Your task to perform on an android device: Go to CNN.com Image 0: 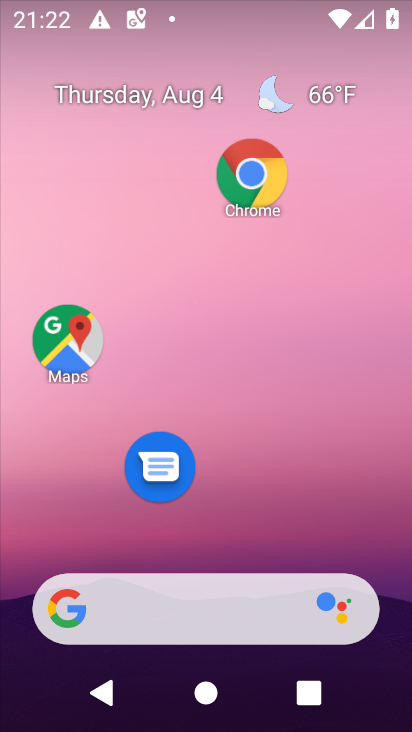
Step 0: click (240, 168)
Your task to perform on an android device: Go to CNN.com Image 1: 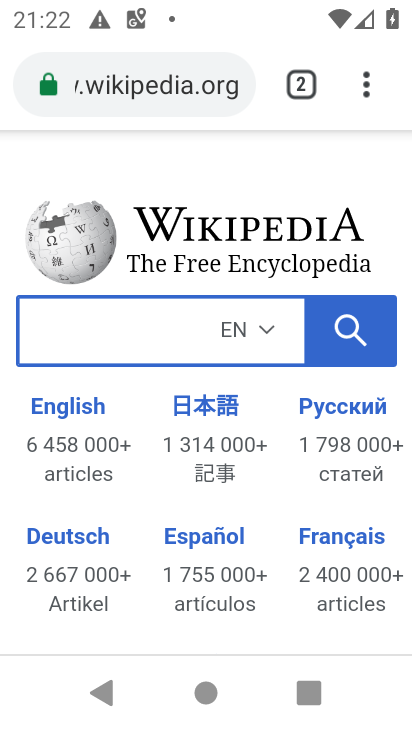
Step 1: click (158, 83)
Your task to perform on an android device: Go to CNN.com Image 2: 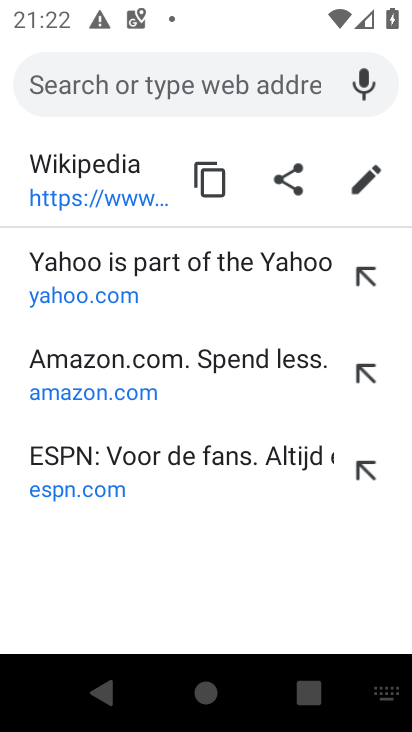
Step 2: type " CNN.com"
Your task to perform on an android device: Go to CNN.com Image 3: 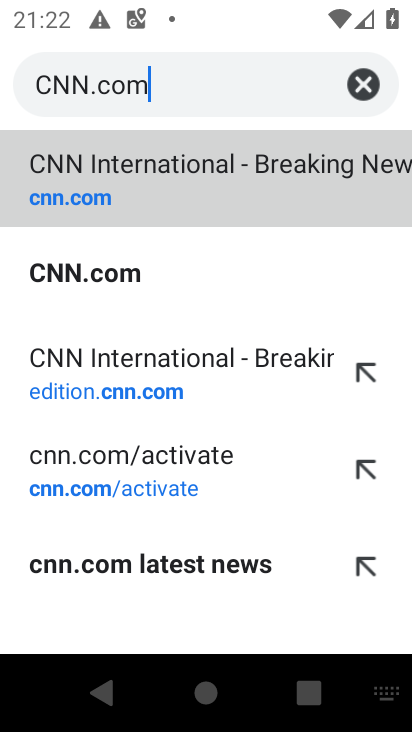
Step 3: type ""
Your task to perform on an android device: Go to CNN.com Image 4: 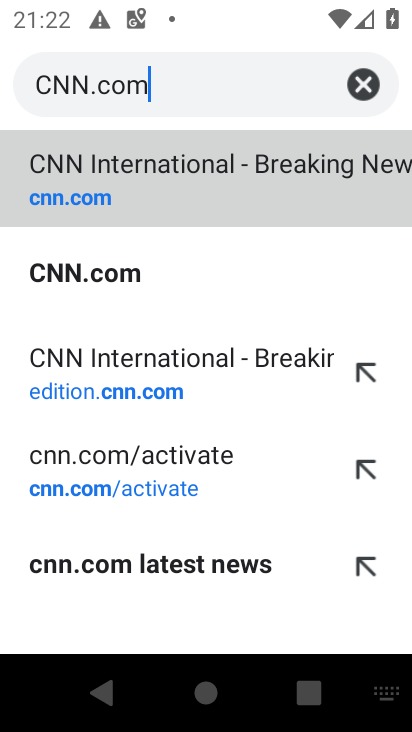
Step 4: click (109, 198)
Your task to perform on an android device: Go to CNN.com Image 5: 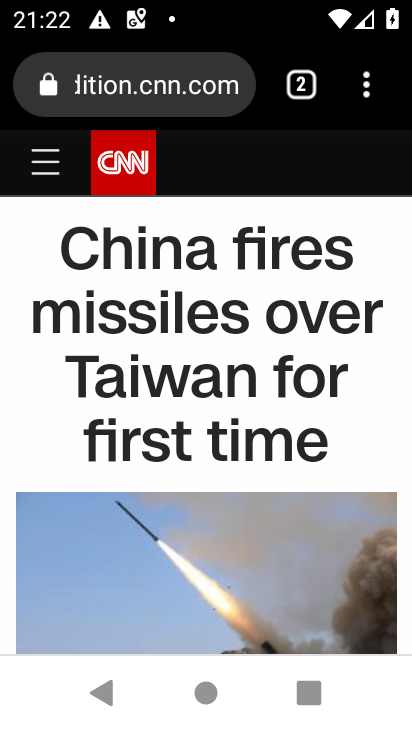
Step 5: task complete